Your task to perform on an android device: turn on priority inbox in the gmail app Image 0: 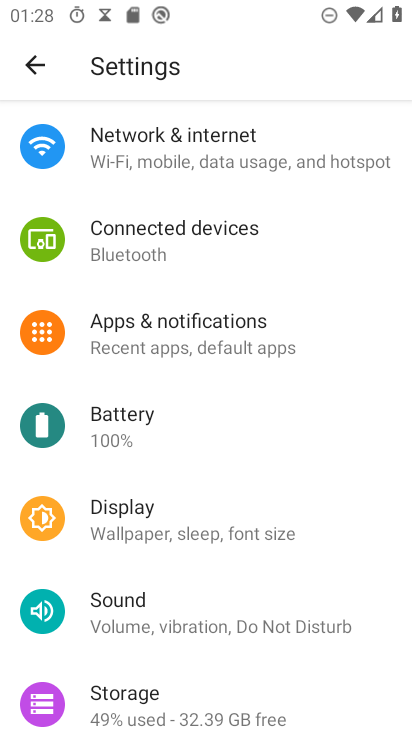
Step 0: press home button
Your task to perform on an android device: turn on priority inbox in the gmail app Image 1: 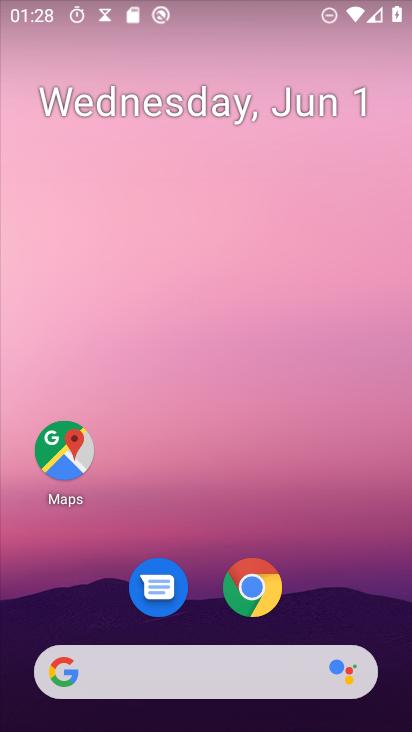
Step 1: drag from (333, 631) to (255, 0)
Your task to perform on an android device: turn on priority inbox in the gmail app Image 2: 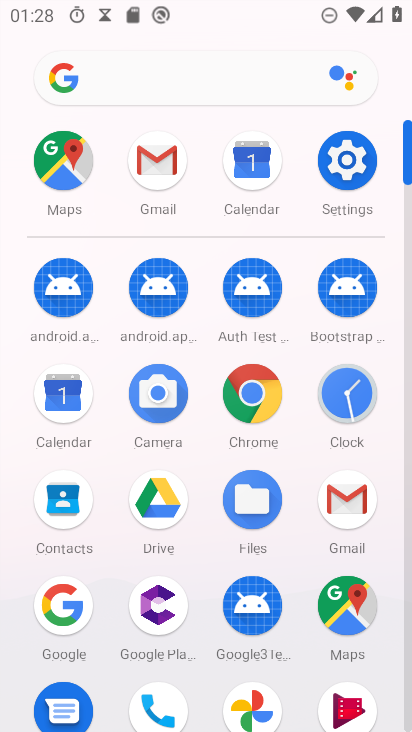
Step 2: click (354, 511)
Your task to perform on an android device: turn on priority inbox in the gmail app Image 3: 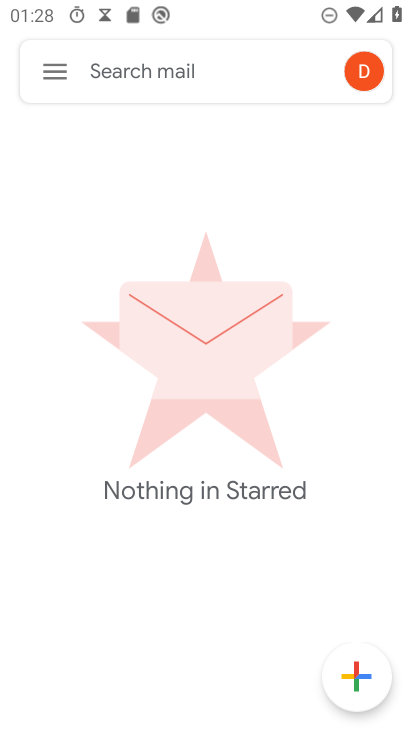
Step 3: click (49, 82)
Your task to perform on an android device: turn on priority inbox in the gmail app Image 4: 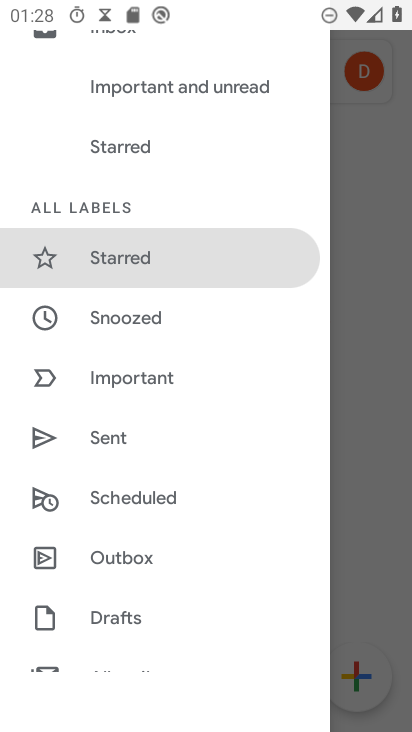
Step 4: drag from (91, 625) to (108, 57)
Your task to perform on an android device: turn on priority inbox in the gmail app Image 5: 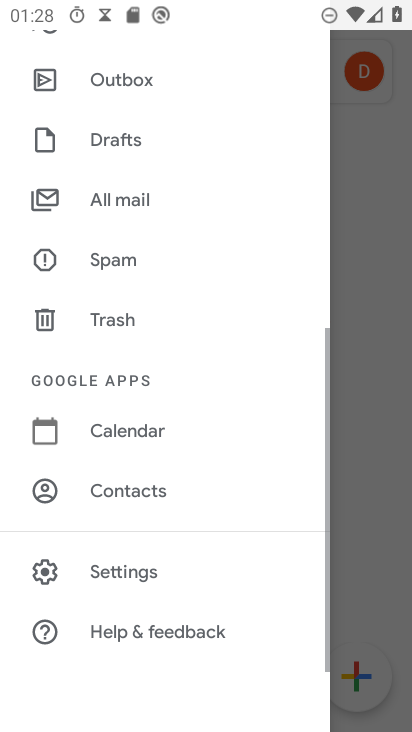
Step 5: click (133, 580)
Your task to perform on an android device: turn on priority inbox in the gmail app Image 6: 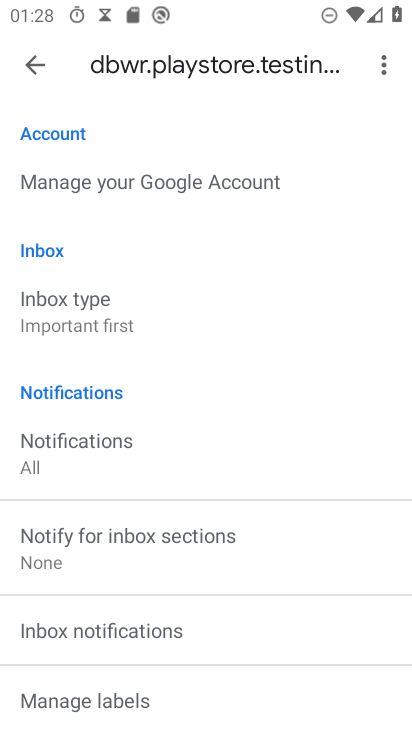
Step 6: drag from (147, 606) to (149, 518)
Your task to perform on an android device: turn on priority inbox in the gmail app Image 7: 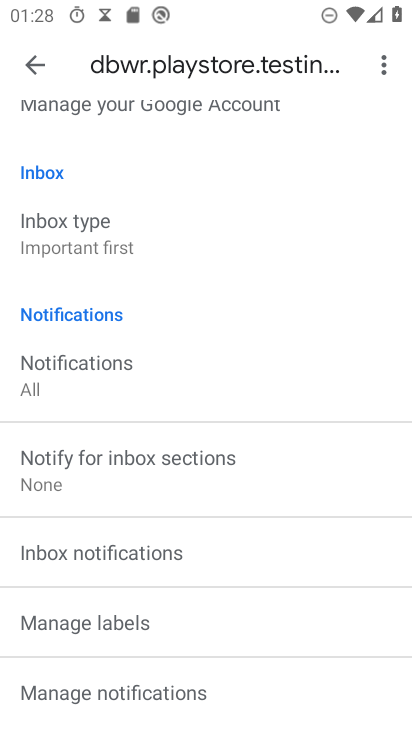
Step 7: click (89, 238)
Your task to perform on an android device: turn on priority inbox in the gmail app Image 8: 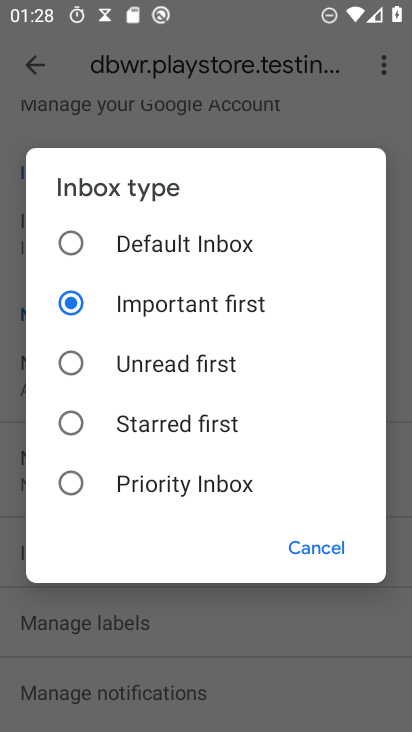
Step 8: click (140, 490)
Your task to perform on an android device: turn on priority inbox in the gmail app Image 9: 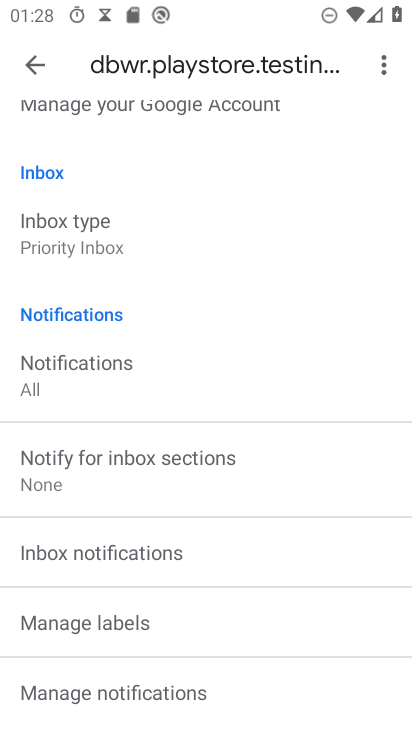
Step 9: task complete